Your task to perform on an android device: Open Android settings Image 0: 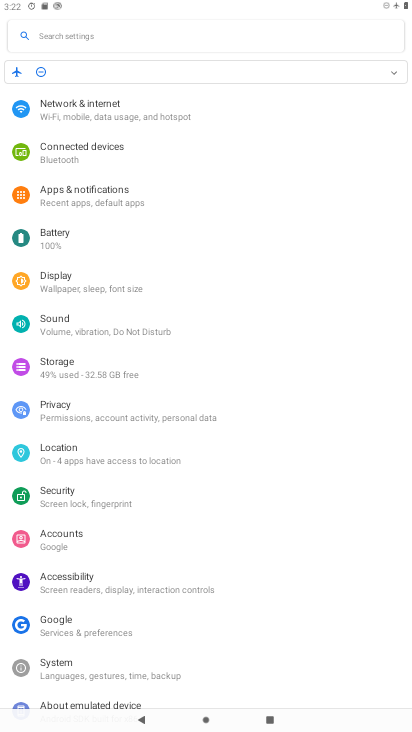
Step 0: press home button
Your task to perform on an android device: Open Android settings Image 1: 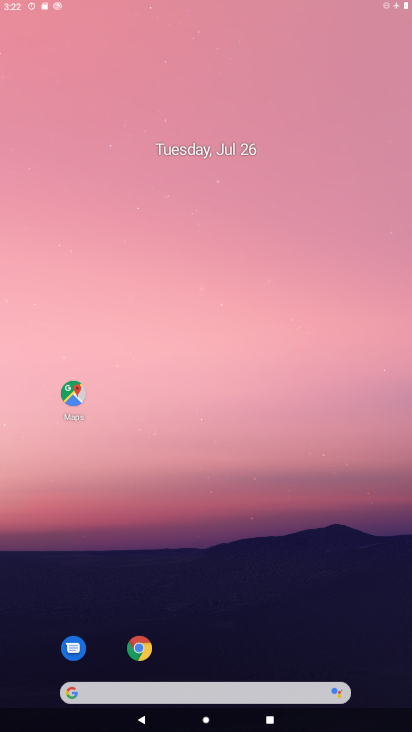
Step 1: drag from (401, 633) to (209, 38)
Your task to perform on an android device: Open Android settings Image 2: 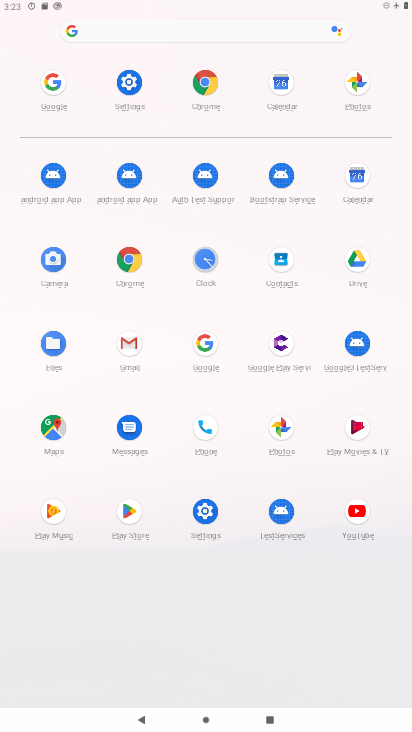
Step 2: click (216, 506)
Your task to perform on an android device: Open Android settings Image 3: 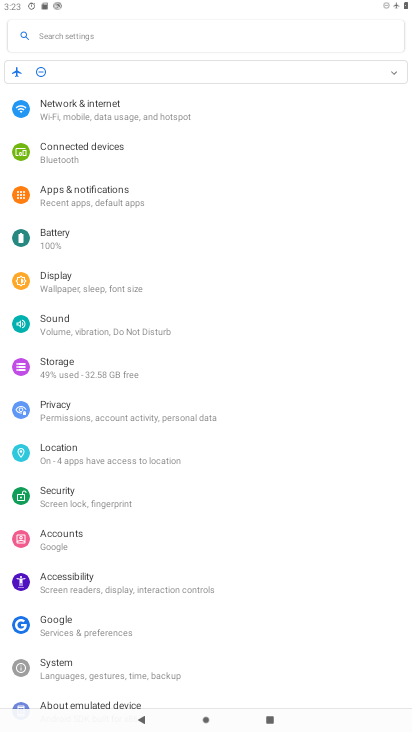
Step 3: task complete